Your task to perform on an android device: uninstall "Venmo" Image 0: 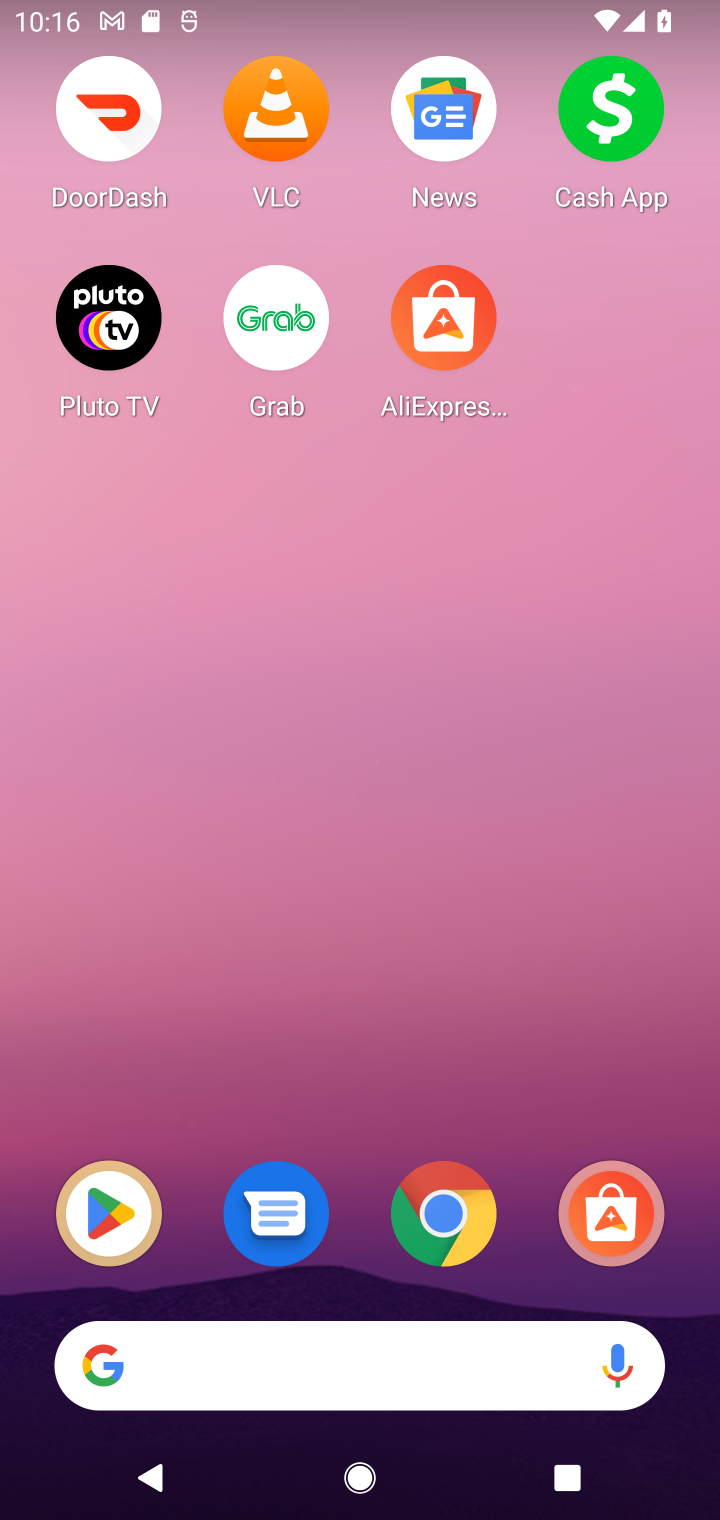
Step 0: drag from (250, 1269) to (135, 1261)
Your task to perform on an android device: uninstall "Venmo" Image 1: 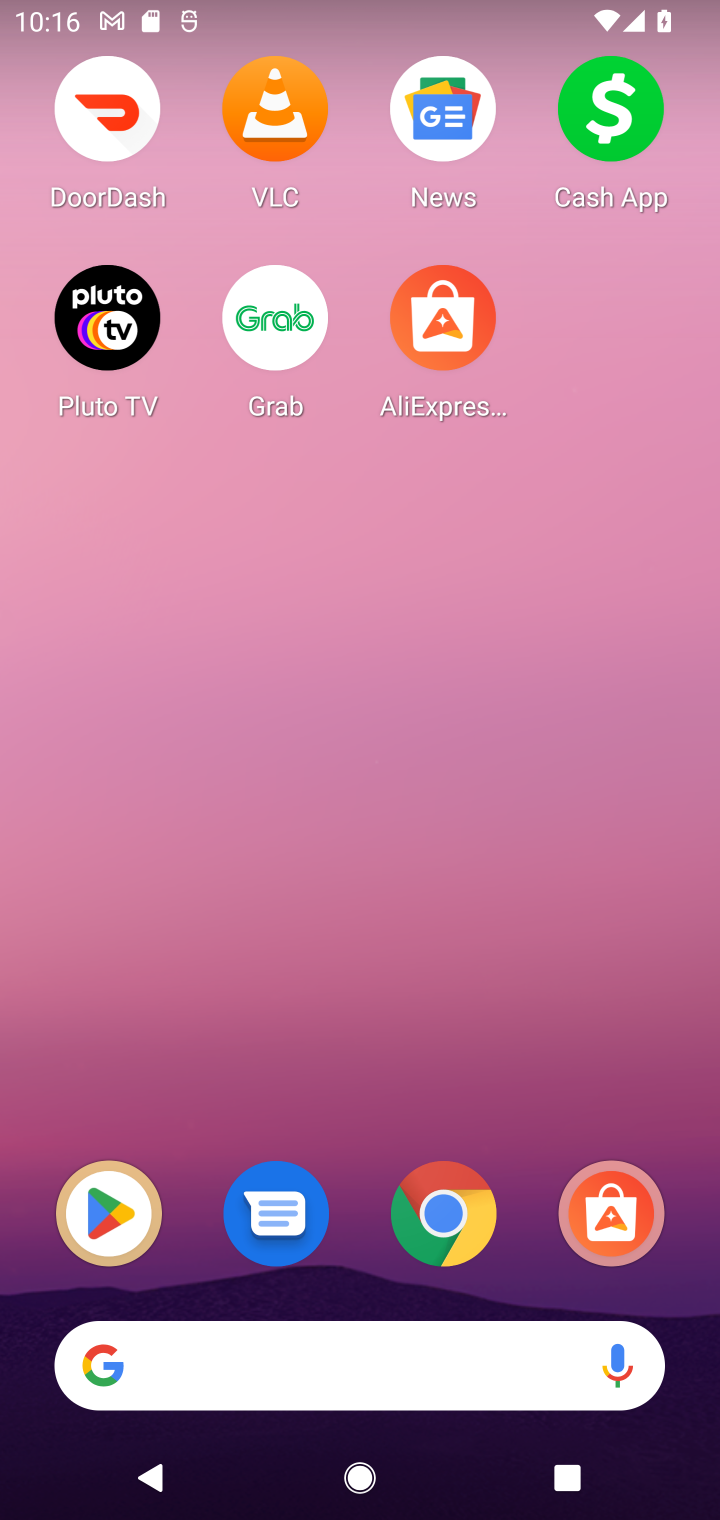
Step 1: click (122, 1226)
Your task to perform on an android device: uninstall "Venmo" Image 2: 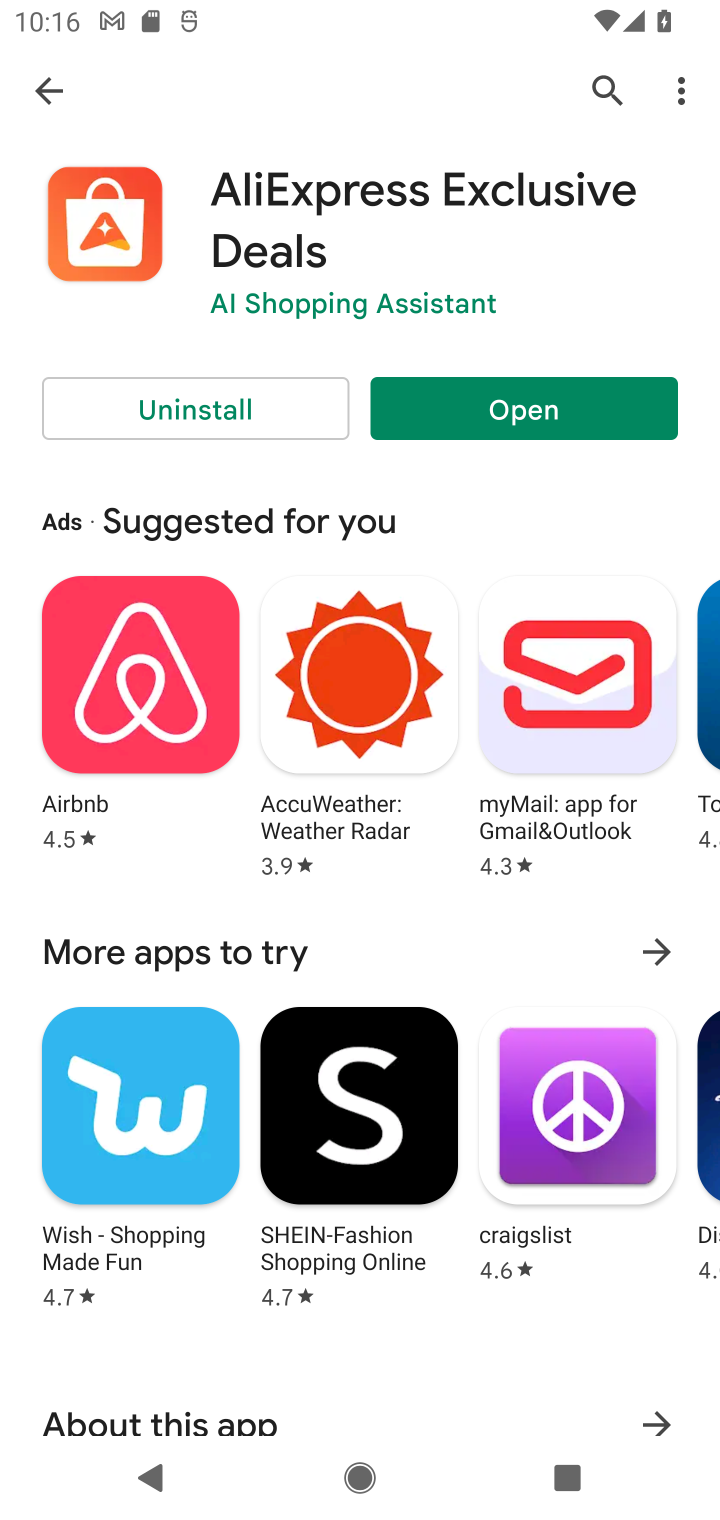
Step 2: click (51, 86)
Your task to perform on an android device: uninstall "Venmo" Image 3: 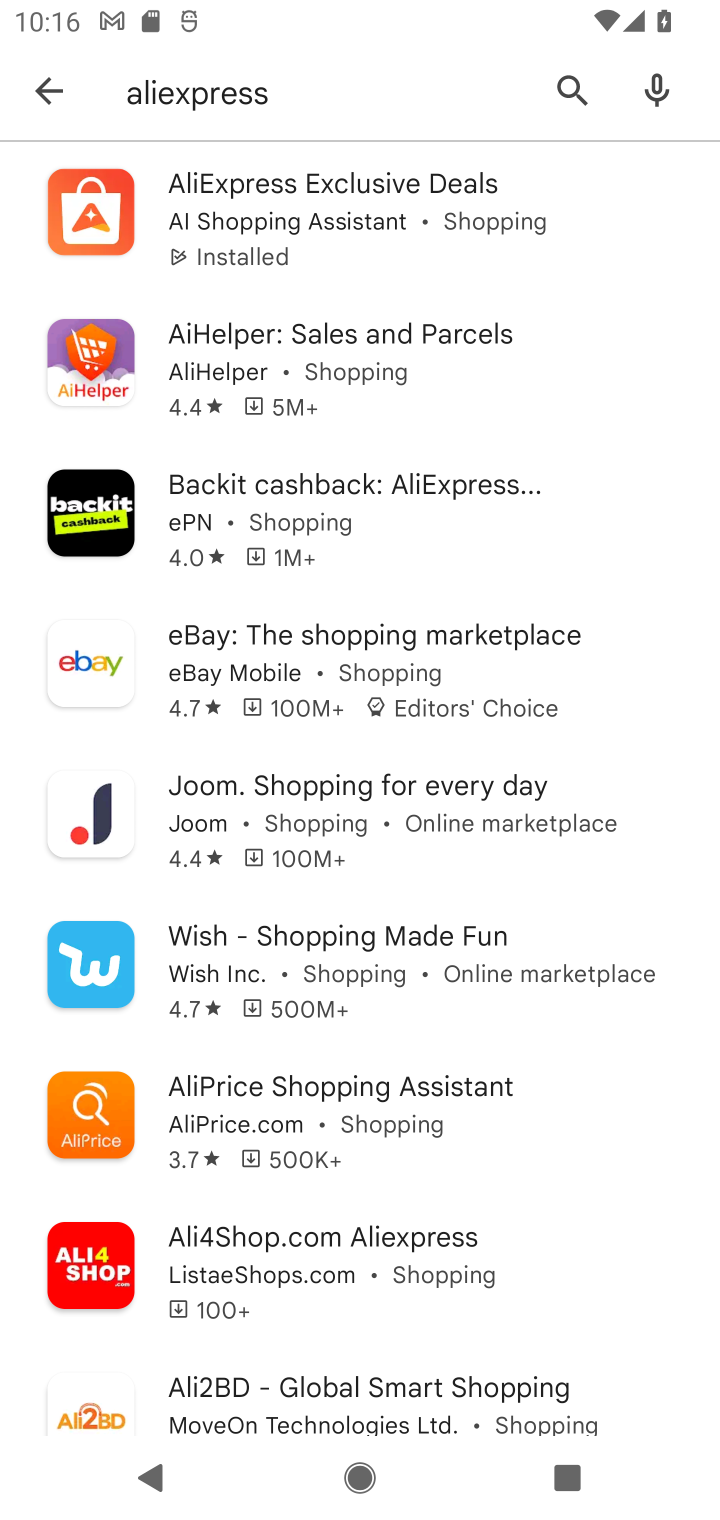
Step 3: click (54, 77)
Your task to perform on an android device: uninstall "Venmo" Image 4: 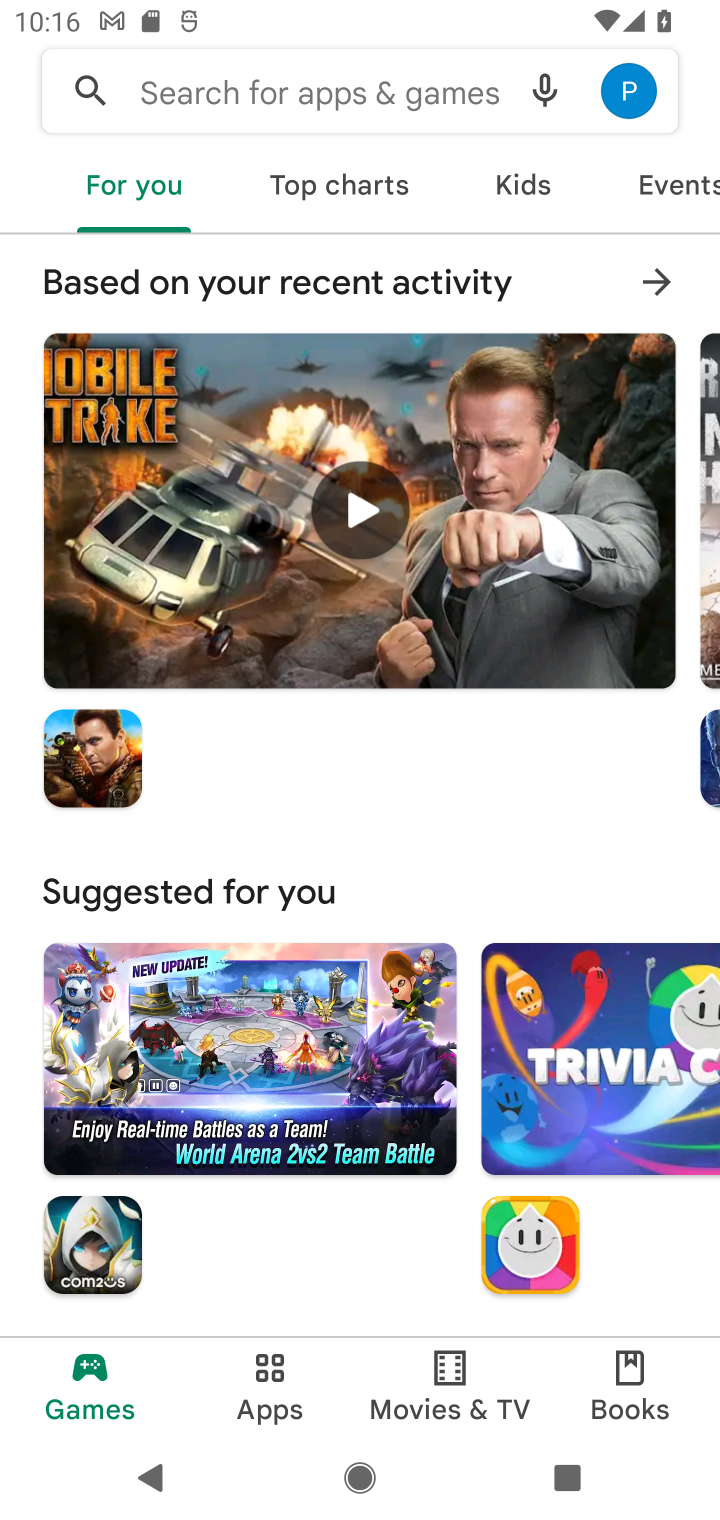
Step 4: click (258, 82)
Your task to perform on an android device: uninstall "Venmo" Image 5: 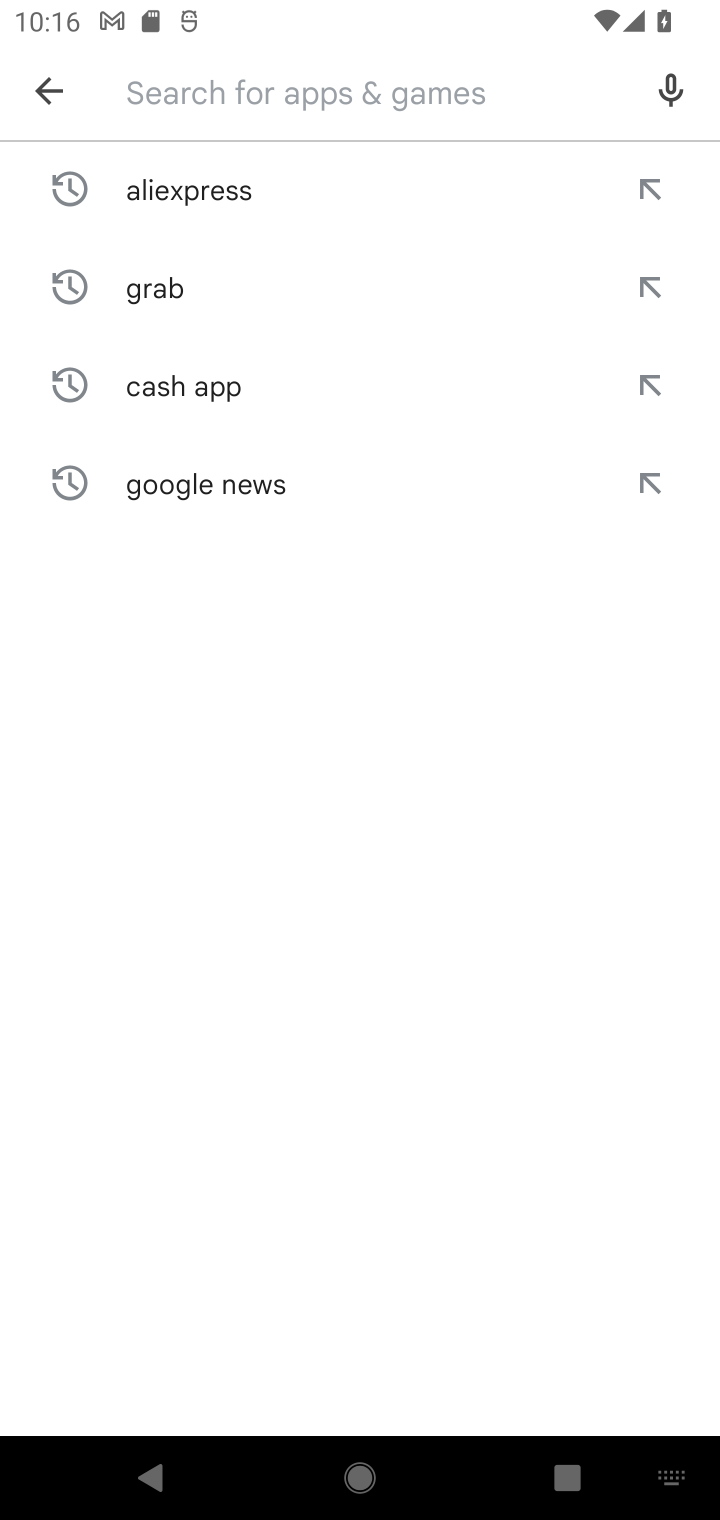
Step 5: type "Venmo"
Your task to perform on an android device: uninstall "Venmo" Image 6: 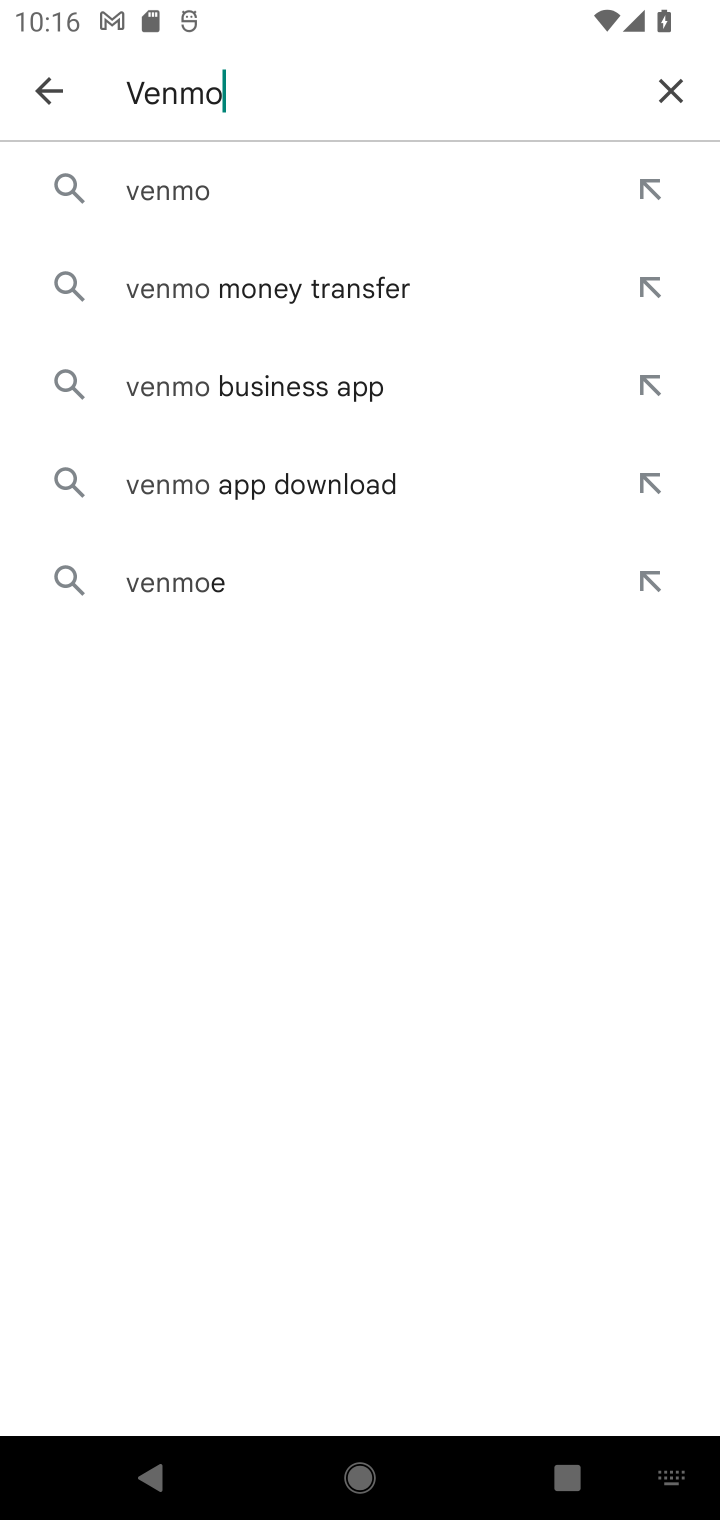
Step 6: click (161, 180)
Your task to perform on an android device: uninstall "Venmo" Image 7: 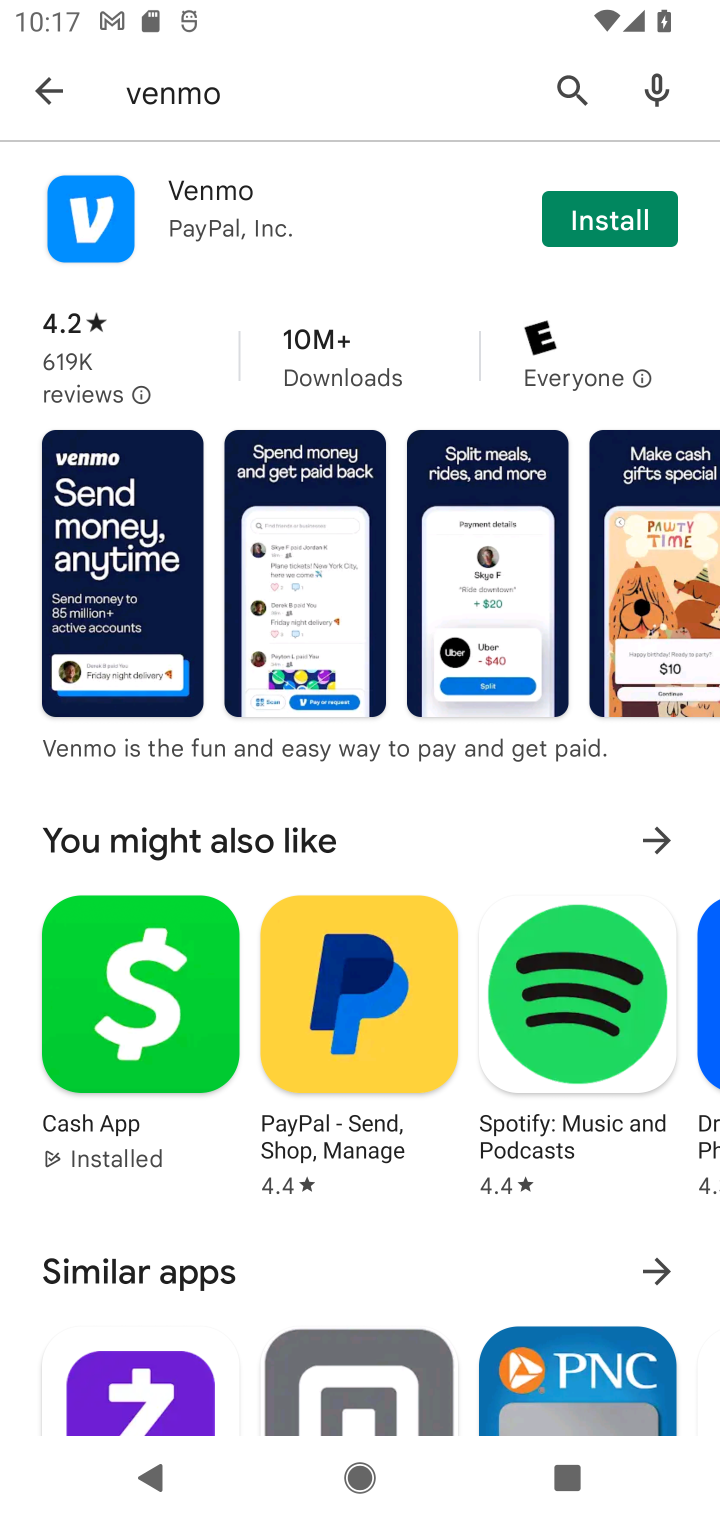
Step 7: click (606, 222)
Your task to perform on an android device: uninstall "Venmo" Image 8: 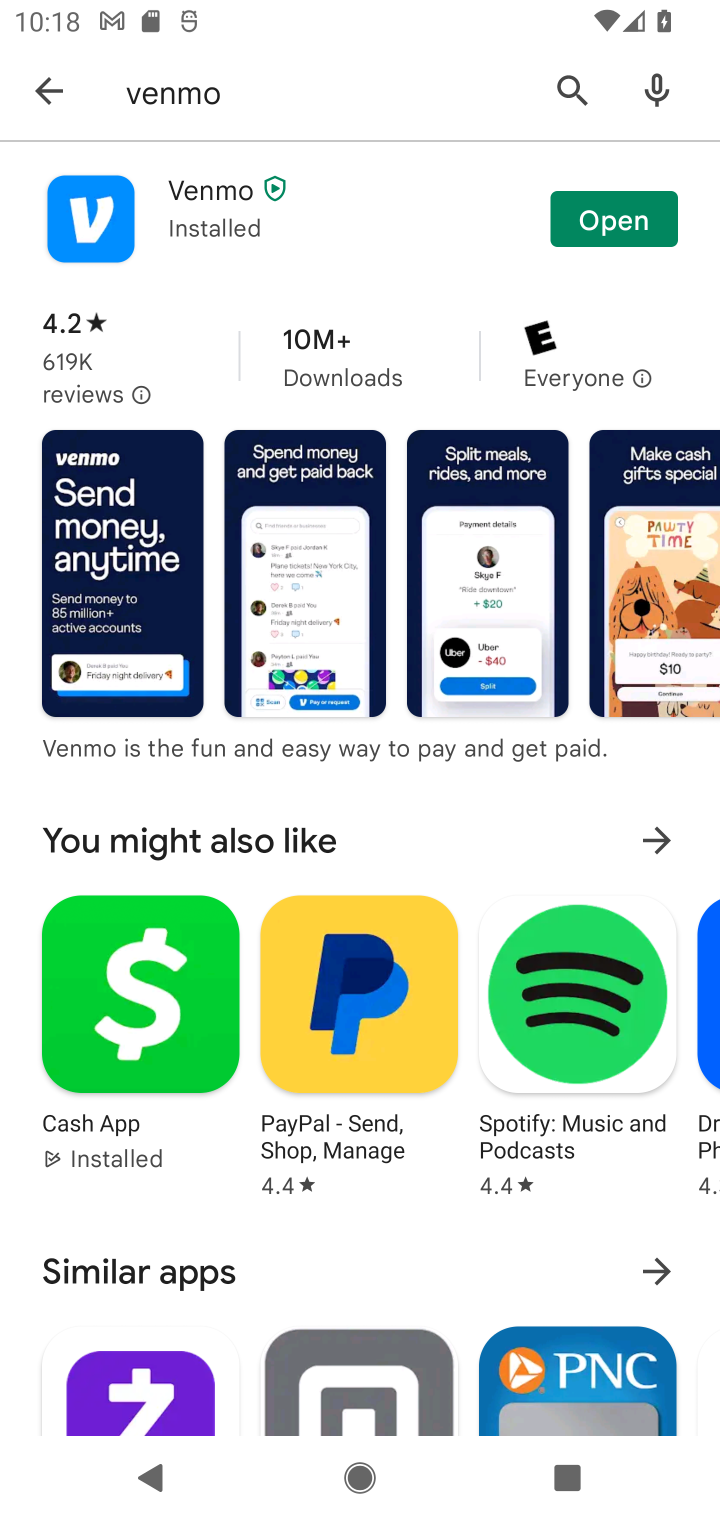
Step 8: click (606, 222)
Your task to perform on an android device: uninstall "Venmo" Image 9: 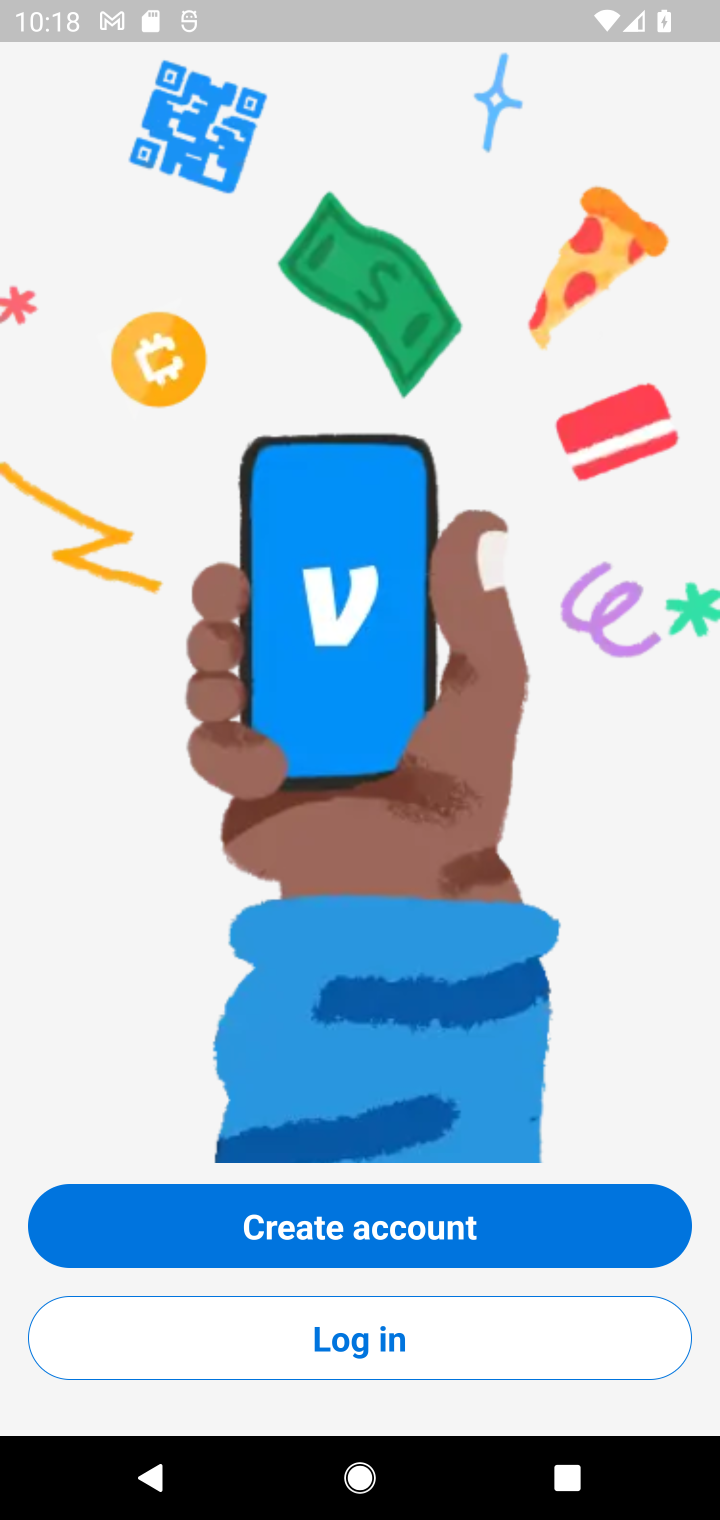
Step 9: task complete